Your task to perform on an android device: clear all cookies in the chrome app Image 0: 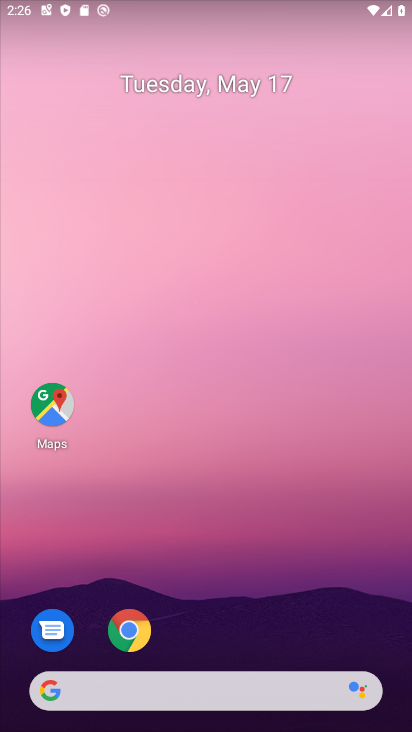
Step 0: click (125, 634)
Your task to perform on an android device: clear all cookies in the chrome app Image 1: 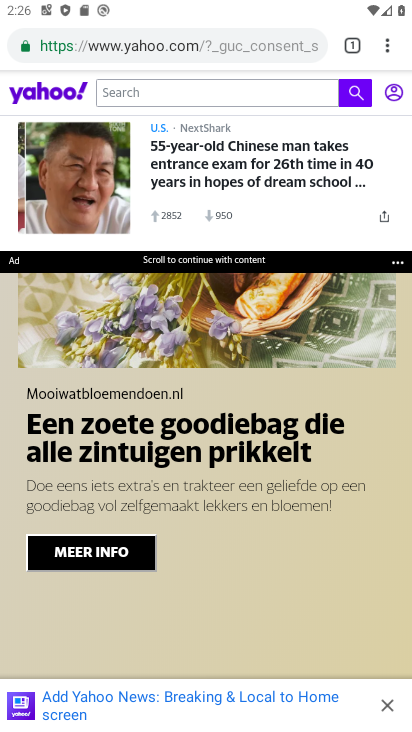
Step 1: click (387, 46)
Your task to perform on an android device: clear all cookies in the chrome app Image 2: 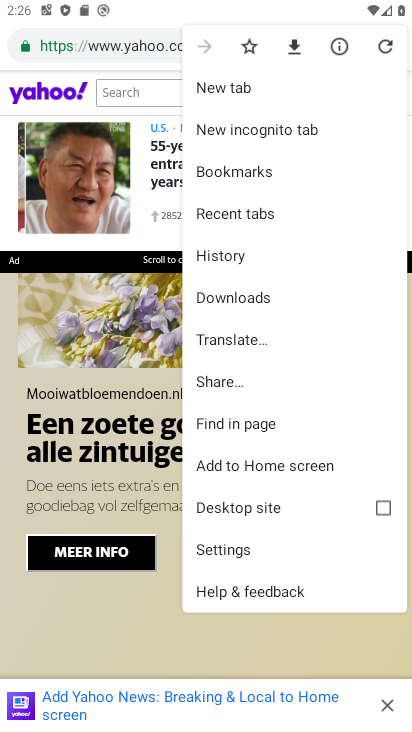
Step 2: click (213, 261)
Your task to perform on an android device: clear all cookies in the chrome app Image 3: 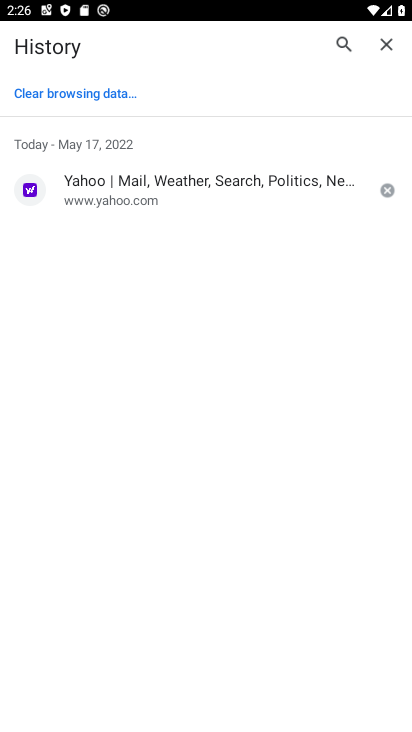
Step 3: click (116, 90)
Your task to perform on an android device: clear all cookies in the chrome app Image 4: 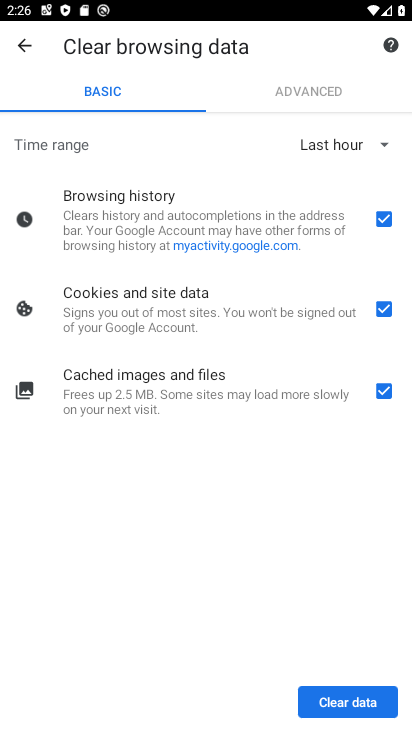
Step 4: click (386, 388)
Your task to perform on an android device: clear all cookies in the chrome app Image 5: 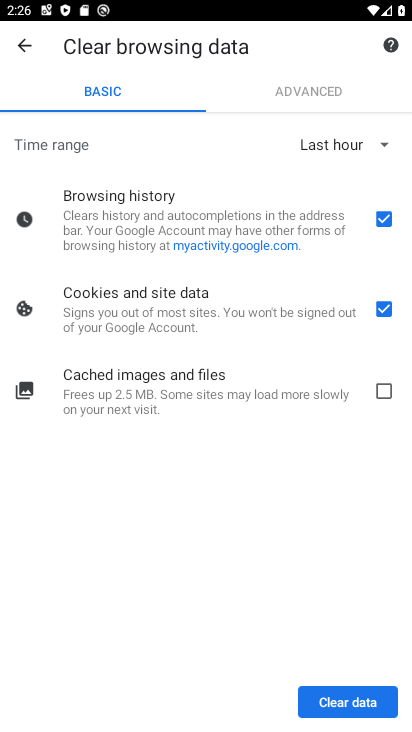
Step 5: click (385, 217)
Your task to perform on an android device: clear all cookies in the chrome app Image 6: 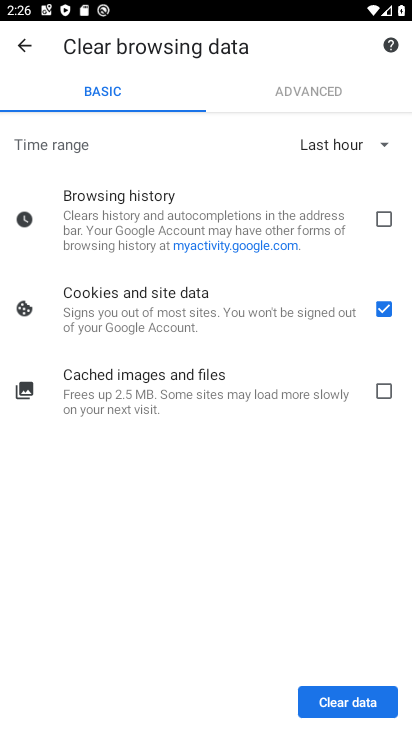
Step 6: click (352, 702)
Your task to perform on an android device: clear all cookies in the chrome app Image 7: 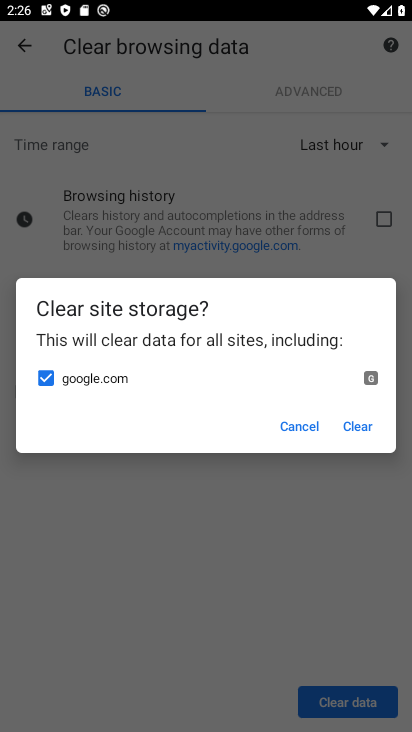
Step 7: click (352, 427)
Your task to perform on an android device: clear all cookies in the chrome app Image 8: 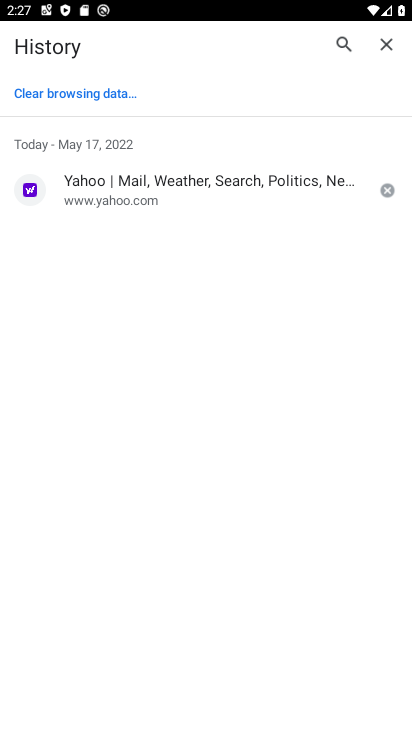
Step 8: task complete